Your task to perform on an android device: Open display settings Image 0: 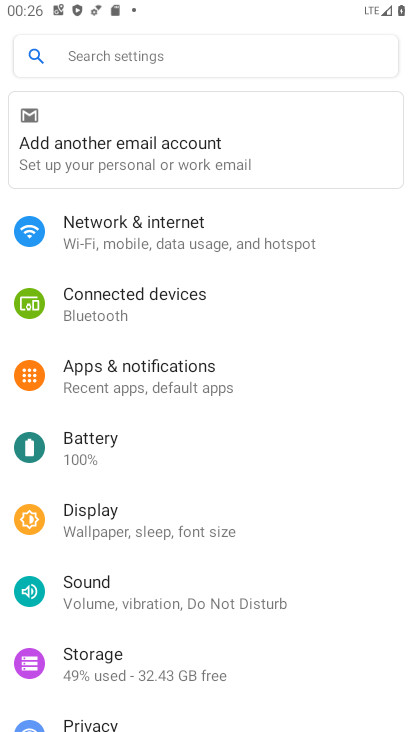
Step 0: click (212, 524)
Your task to perform on an android device: Open display settings Image 1: 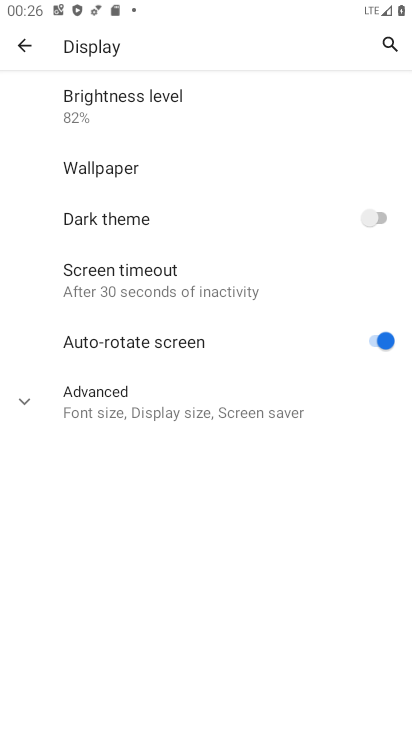
Step 1: task complete